Your task to perform on an android device: find photos in the google photos app Image 0: 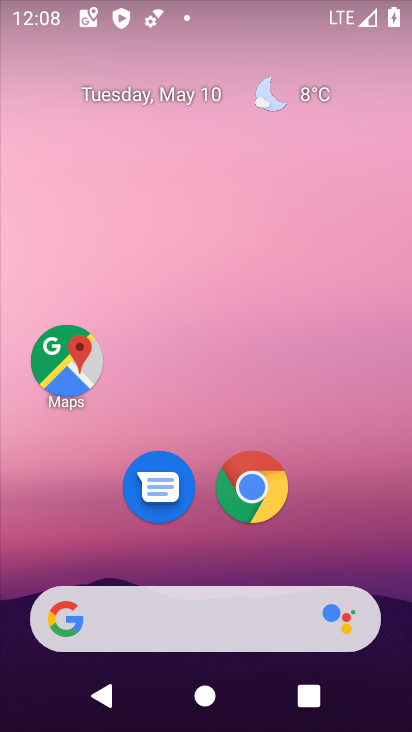
Step 0: drag from (207, 562) to (251, 152)
Your task to perform on an android device: find photos in the google photos app Image 1: 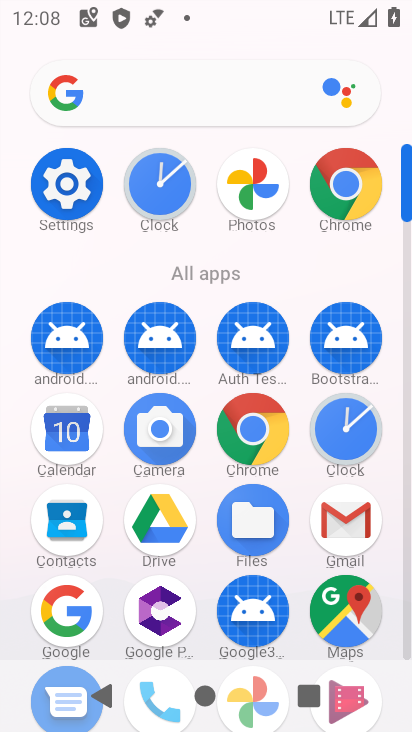
Step 1: click (250, 176)
Your task to perform on an android device: find photos in the google photos app Image 2: 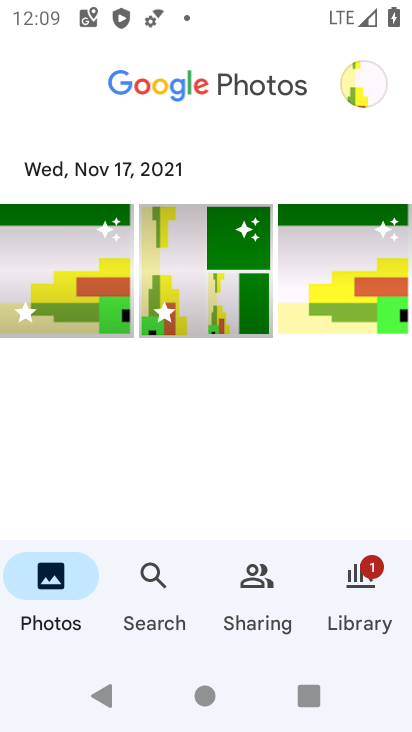
Step 2: click (78, 264)
Your task to perform on an android device: find photos in the google photos app Image 3: 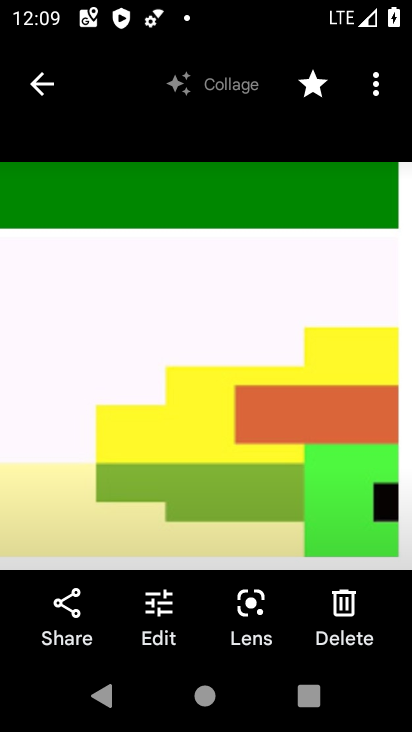
Step 3: task complete